Your task to perform on an android device: Is it going to rain today? Image 0: 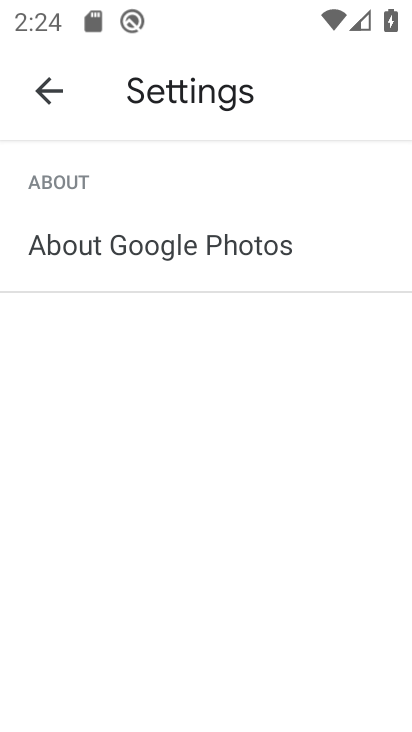
Step 0: click (44, 91)
Your task to perform on an android device: Is it going to rain today? Image 1: 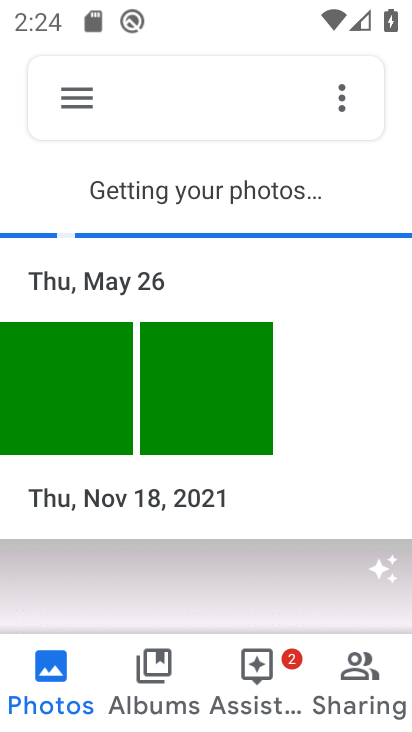
Step 1: click (36, 92)
Your task to perform on an android device: Is it going to rain today? Image 2: 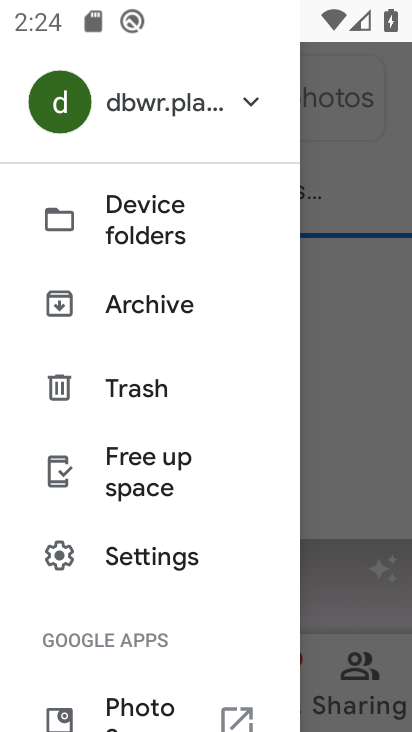
Step 2: click (35, 92)
Your task to perform on an android device: Is it going to rain today? Image 3: 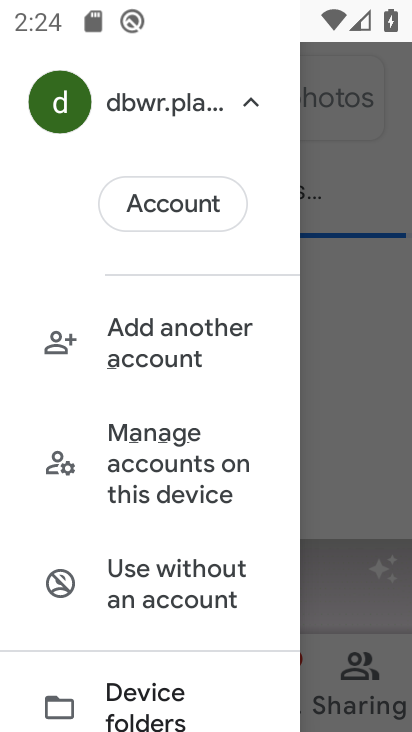
Step 3: click (337, 391)
Your task to perform on an android device: Is it going to rain today? Image 4: 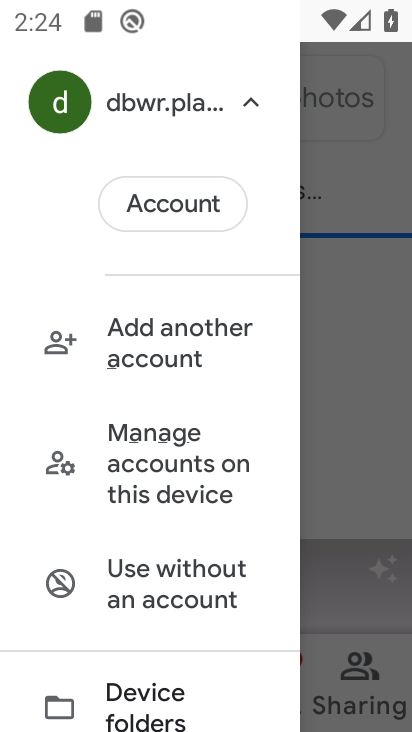
Step 4: click (337, 391)
Your task to perform on an android device: Is it going to rain today? Image 5: 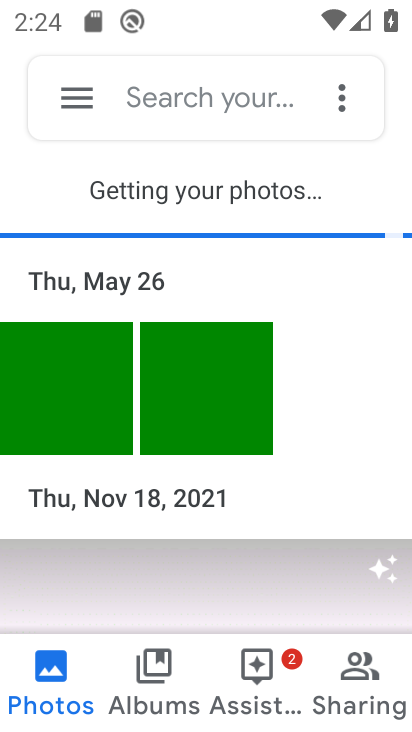
Step 5: press back button
Your task to perform on an android device: Is it going to rain today? Image 6: 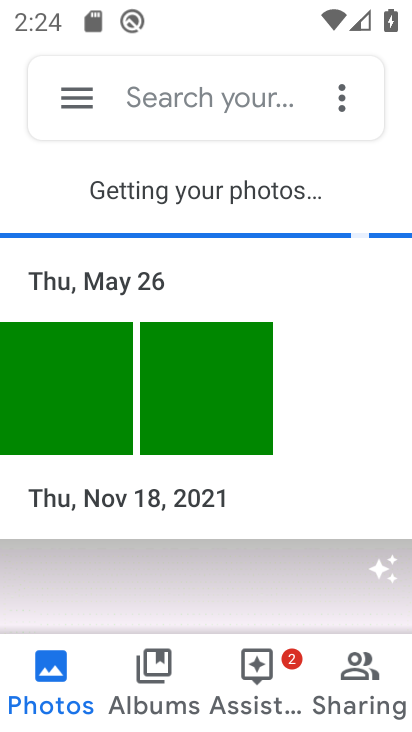
Step 6: press back button
Your task to perform on an android device: Is it going to rain today? Image 7: 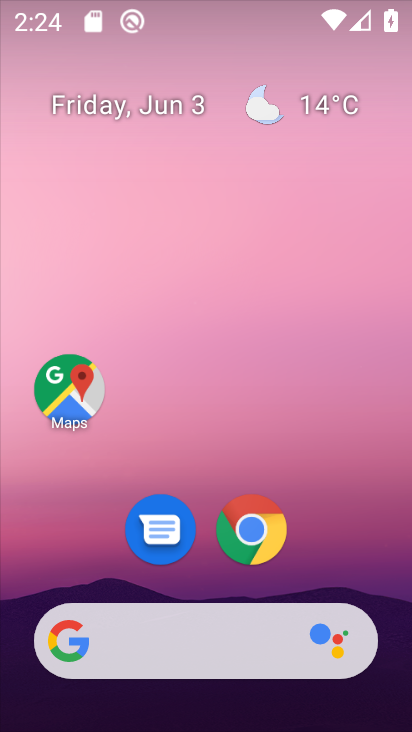
Step 7: press back button
Your task to perform on an android device: Is it going to rain today? Image 8: 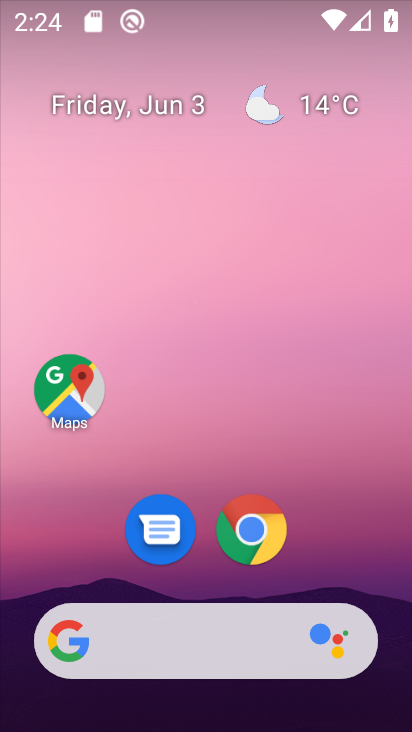
Step 8: press home button
Your task to perform on an android device: Is it going to rain today? Image 9: 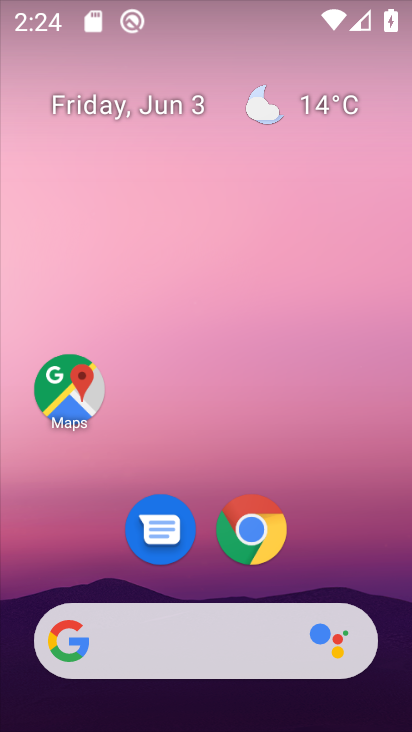
Step 9: press home button
Your task to perform on an android device: Is it going to rain today? Image 10: 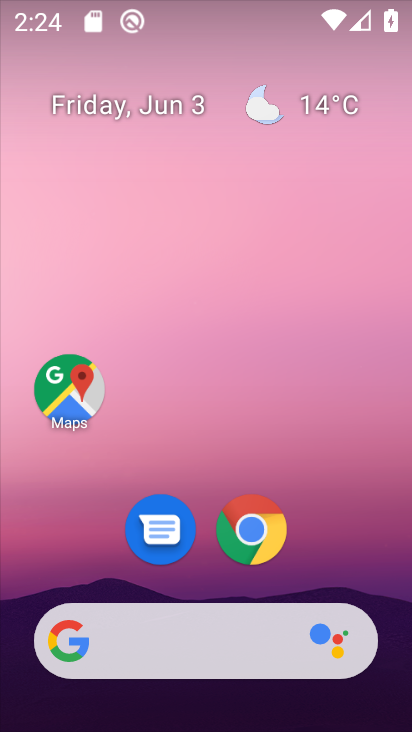
Step 10: drag from (17, 268) to (394, 425)
Your task to perform on an android device: Is it going to rain today? Image 11: 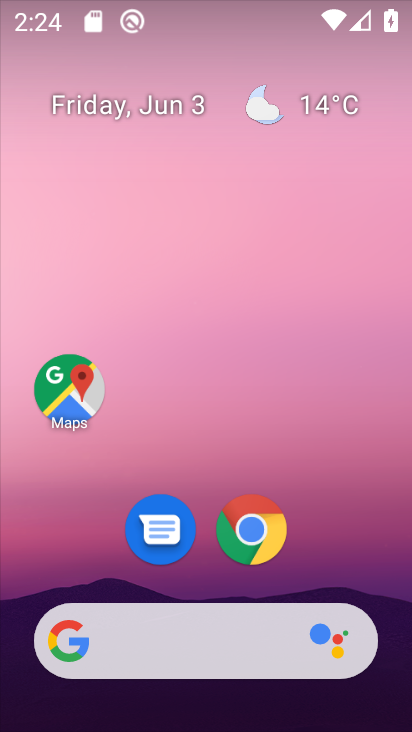
Step 11: click (408, 451)
Your task to perform on an android device: Is it going to rain today? Image 12: 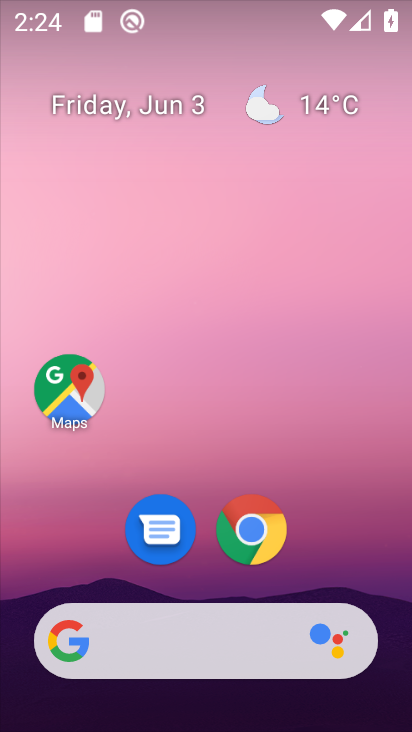
Step 12: drag from (195, 291) to (396, 426)
Your task to perform on an android device: Is it going to rain today? Image 13: 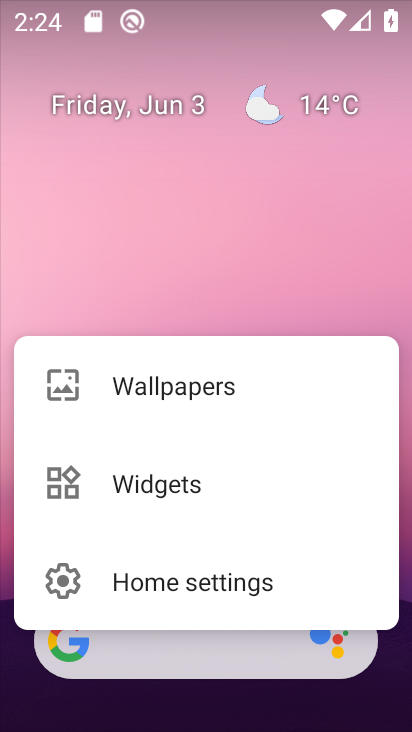
Step 13: drag from (243, 253) to (335, 424)
Your task to perform on an android device: Is it going to rain today? Image 14: 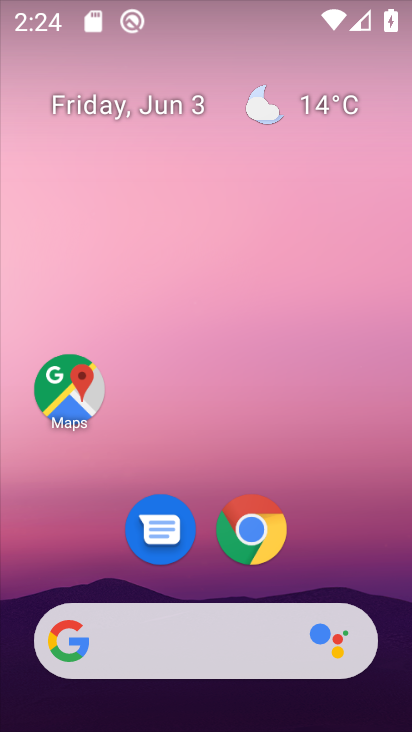
Step 14: click (393, 453)
Your task to perform on an android device: Is it going to rain today? Image 15: 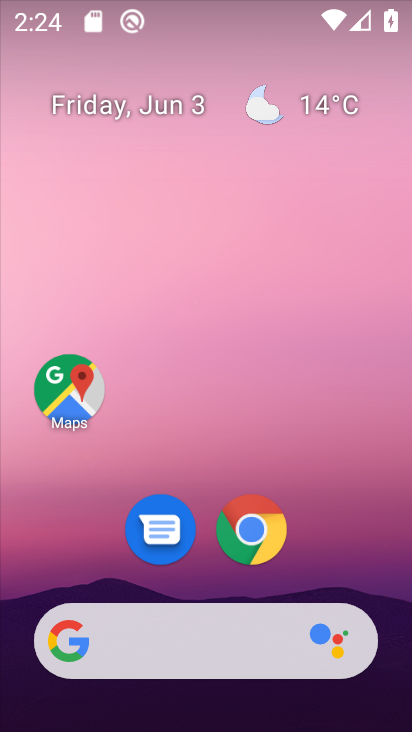
Step 15: drag from (57, 202) to (398, 530)
Your task to perform on an android device: Is it going to rain today? Image 16: 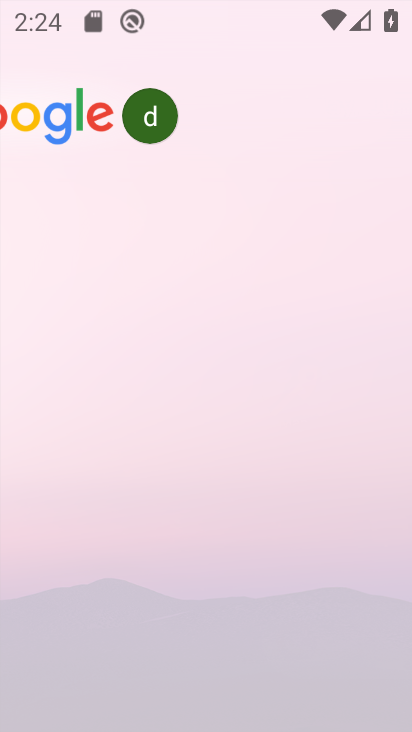
Step 16: click (397, 454)
Your task to perform on an android device: Is it going to rain today? Image 17: 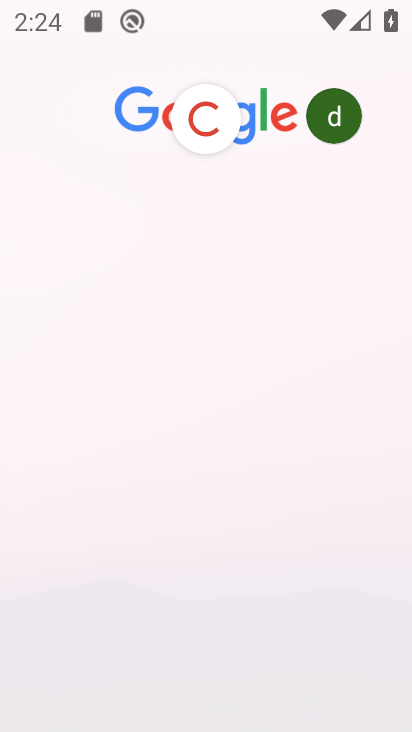
Step 17: task complete